Your task to perform on an android device: turn vacation reply on in the gmail app Image 0: 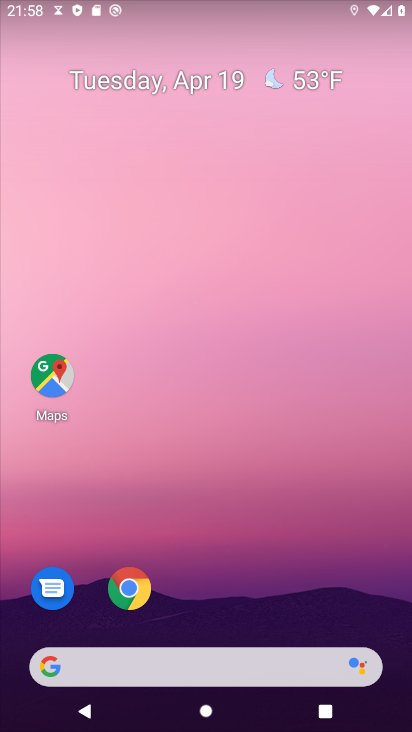
Step 0: drag from (231, 609) to (246, 81)
Your task to perform on an android device: turn vacation reply on in the gmail app Image 1: 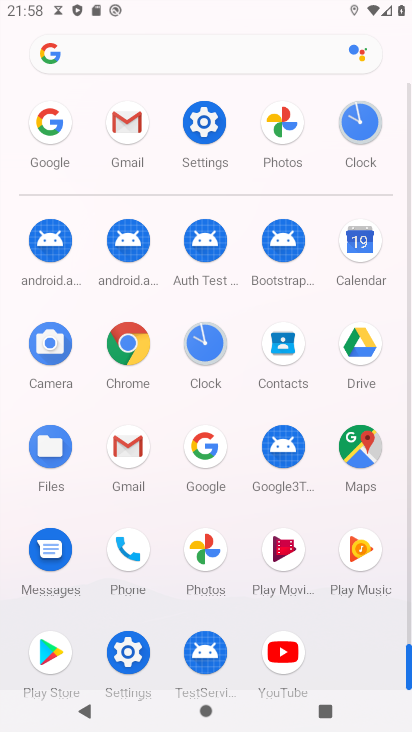
Step 1: click (126, 125)
Your task to perform on an android device: turn vacation reply on in the gmail app Image 2: 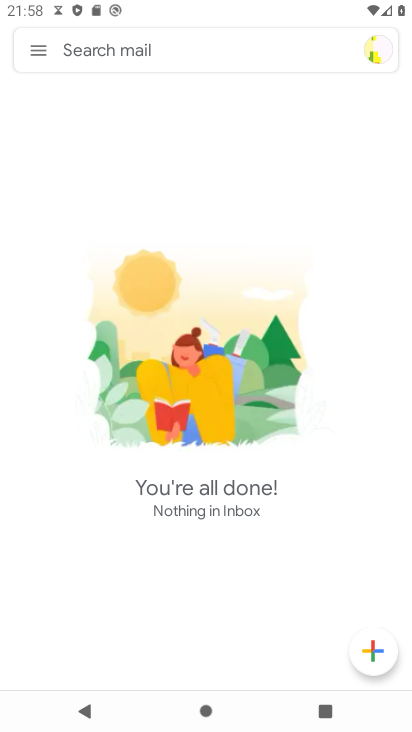
Step 2: click (42, 52)
Your task to perform on an android device: turn vacation reply on in the gmail app Image 3: 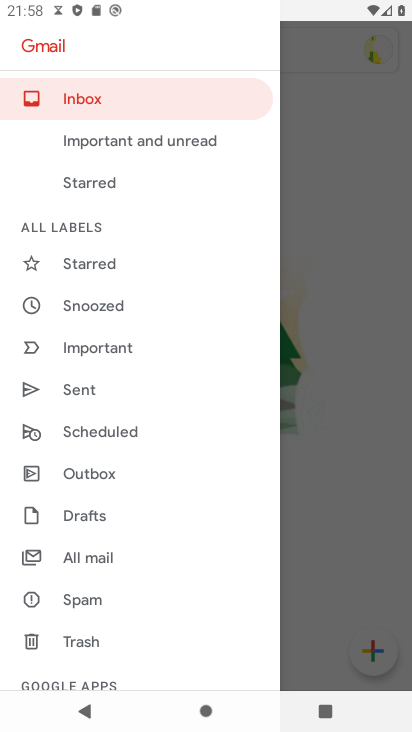
Step 3: drag from (121, 606) to (179, 481)
Your task to perform on an android device: turn vacation reply on in the gmail app Image 4: 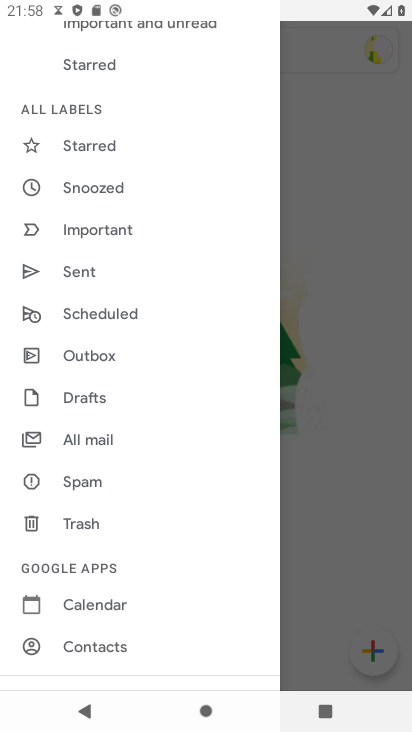
Step 4: drag from (139, 529) to (184, 384)
Your task to perform on an android device: turn vacation reply on in the gmail app Image 5: 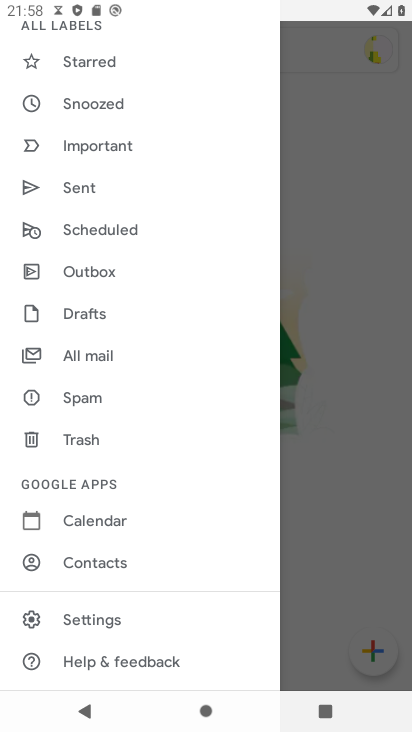
Step 5: click (106, 621)
Your task to perform on an android device: turn vacation reply on in the gmail app Image 6: 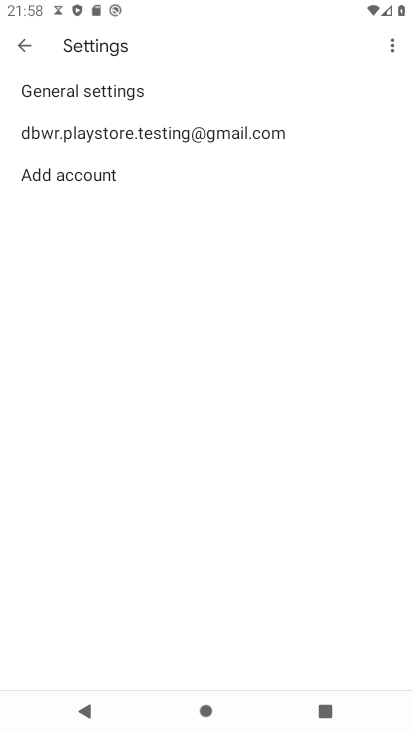
Step 6: click (146, 135)
Your task to perform on an android device: turn vacation reply on in the gmail app Image 7: 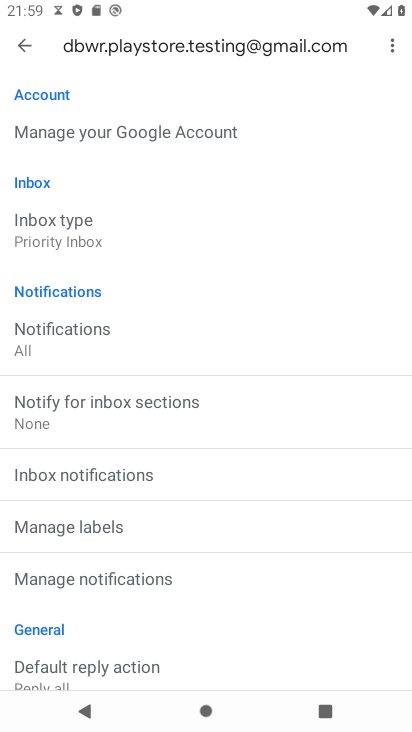
Step 7: drag from (170, 600) to (242, 461)
Your task to perform on an android device: turn vacation reply on in the gmail app Image 8: 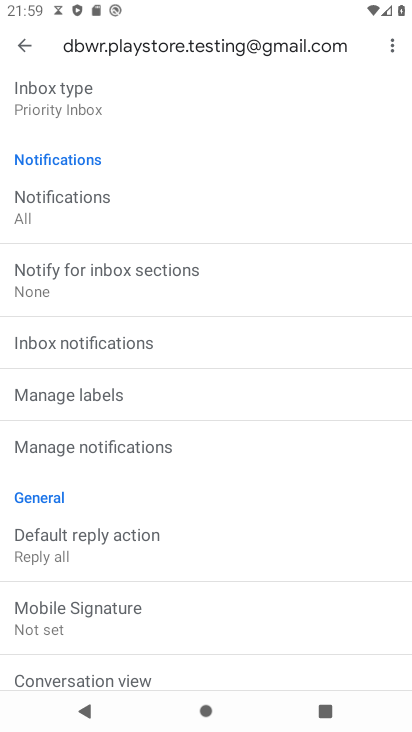
Step 8: drag from (149, 568) to (211, 446)
Your task to perform on an android device: turn vacation reply on in the gmail app Image 9: 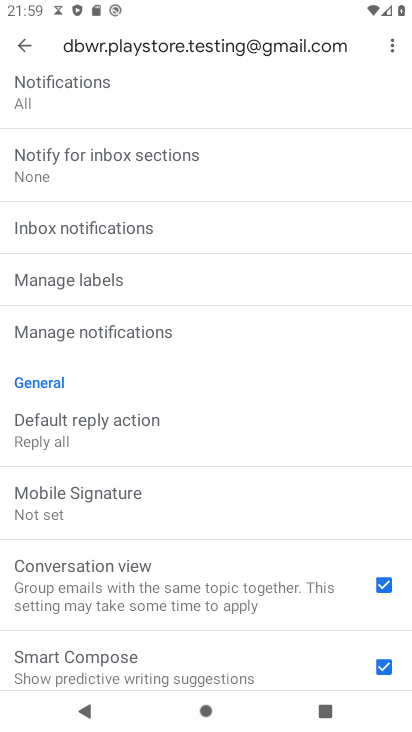
Step 9: drag from (166, 537) to (205, 432)
Your task to perform on an android device: turn vacation reply on in the gmail app Image 10: 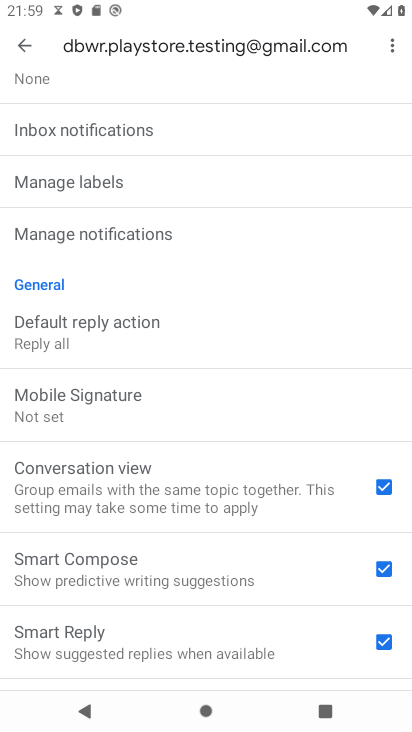
Step 10: drag from (148, 618) to (209, 431)
Your task to perform on an android device: turn vacation reply on in the gmail app Image 11: 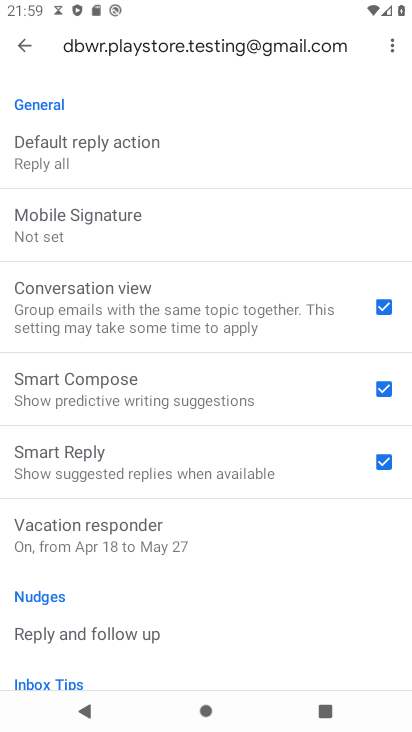
Step 11: click (123, 546)
Your task to perform on an android device: turn vacation reply on in the gmail app Image 12: 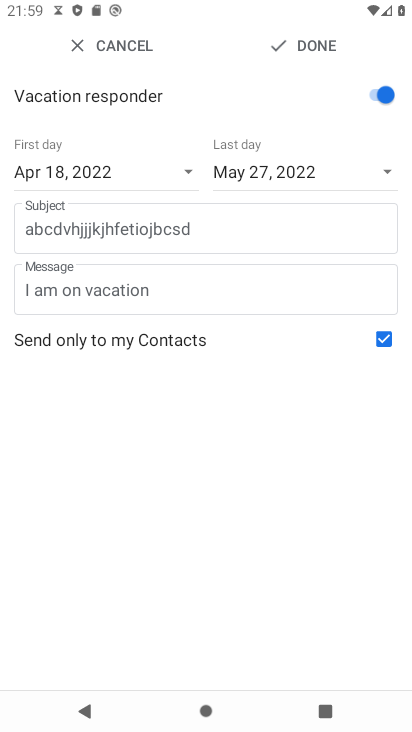
Step 12: task complete